Your task to perform on an android device: open app "Spotify: Music and Podcasts" (install if not already installed), go to login, and select forgot password Image 0: 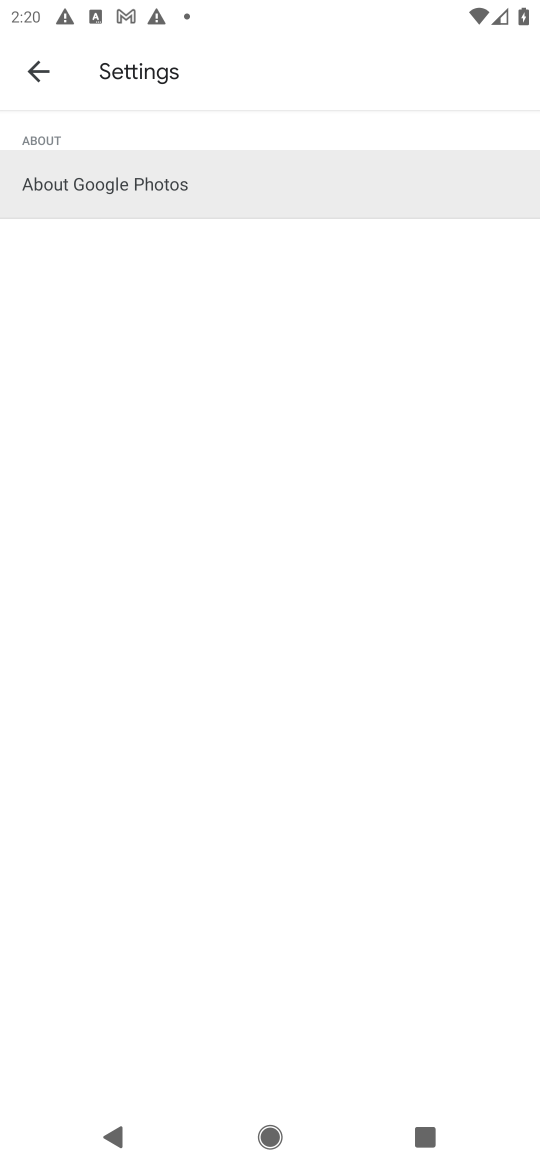
Step 0: press home button
Your task to perform on an android device: open app "Spotify: Music and Podcasts" (install if not already installed), go to login, and select forgot password Image 1: 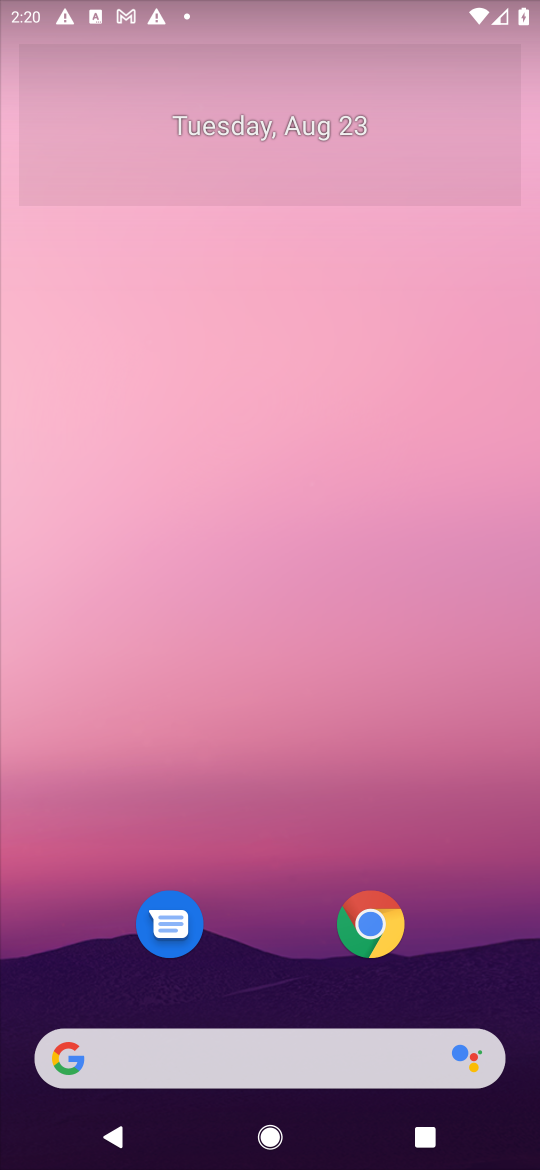
Step 1: drag from (482, 970) to (470, 156)
Your task to perform on an android device: open app "Spotify: Music and Podcasts" (install if not already installed), go to login, and select forgot password Image 2: 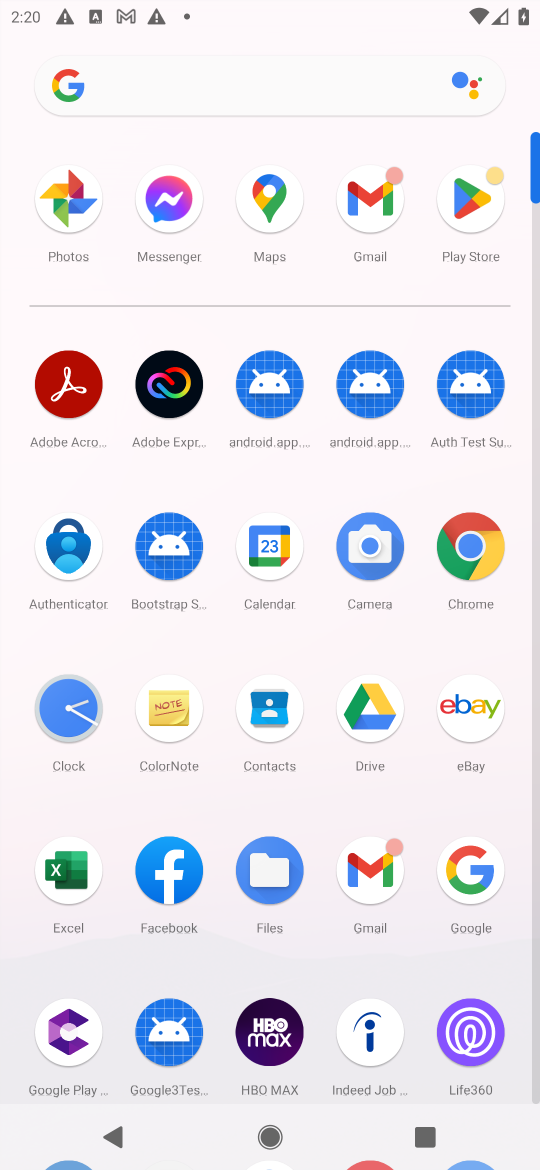
Step 2: click (467, 197)
Your task to perform on an android device: open app "Spotify: Music and Podcasts" (install if not already installed), go to login, and select forgot password Image 3: 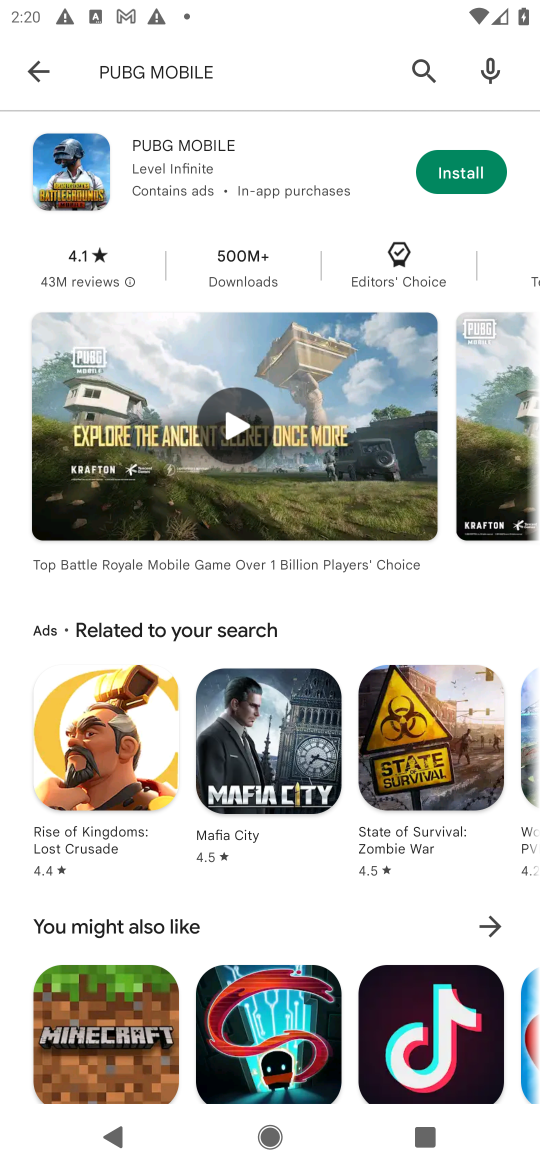
Step 3: press back button
Your task to perform on an android device: open app "Spotify: Music and Podcasts" (install if not already installed), go to login, and select forgot password Image 4: 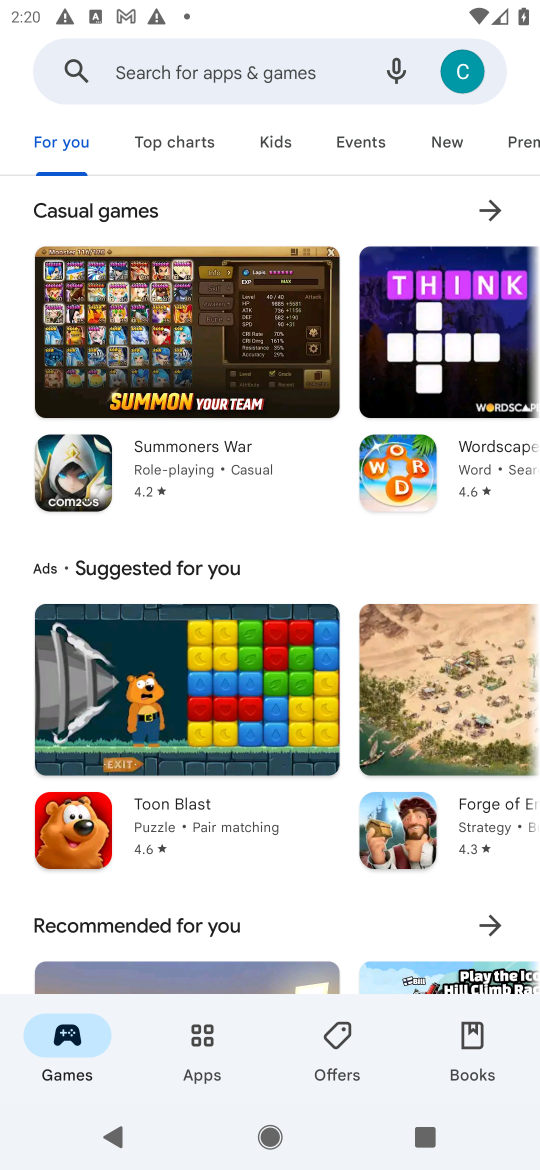
Step 4: click (229, 62)
Your task to perform on an android device: open app "Spotify: Music and Podcasts" (install if not already installed), go to login, and select forgot password Image 5: 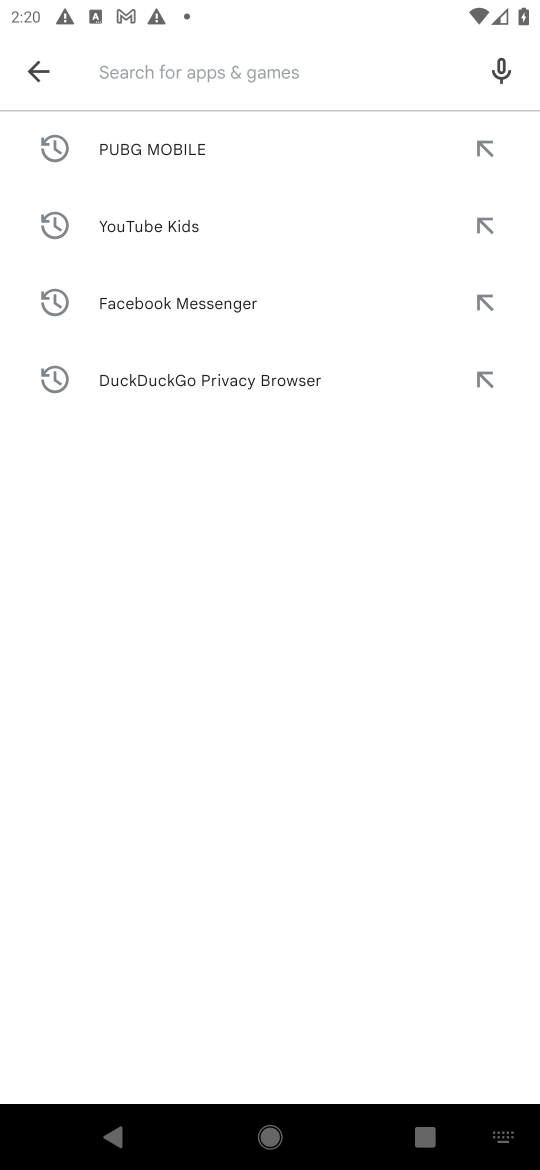
Step 5: press enter
Your task to perform on an android device: open app "Spotify: Music and Podcasts" (install if not already installed), go to login, and select forgot password Image 6: 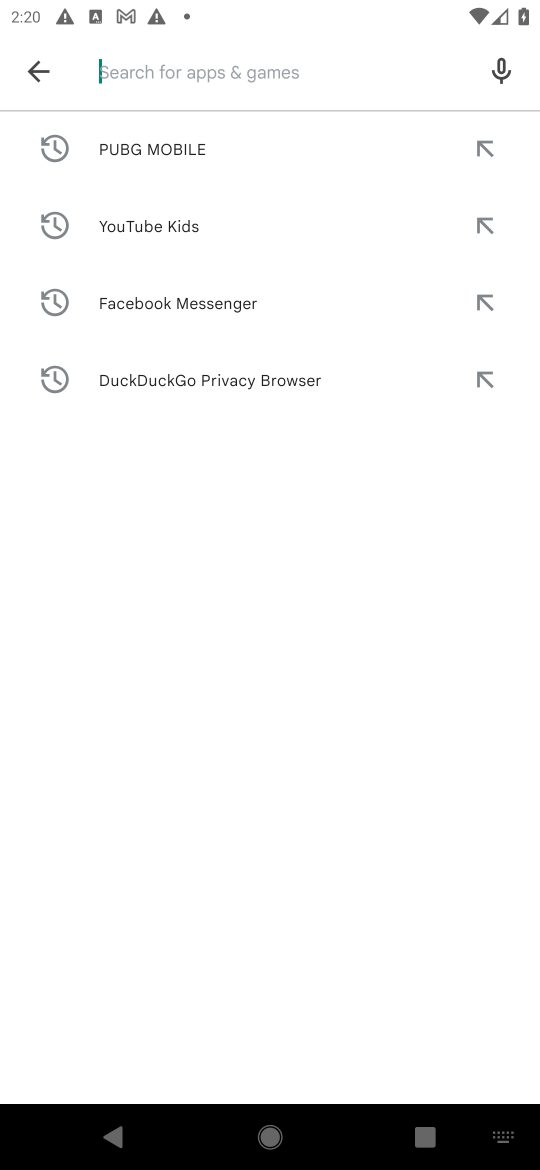
Step 6: type "Spotify: Music and Podcasts"
Your task to perform on an android device: open app "Spotify: Music and Podcasts" (install if not already installed), go to login, and select forgot password Image 7: 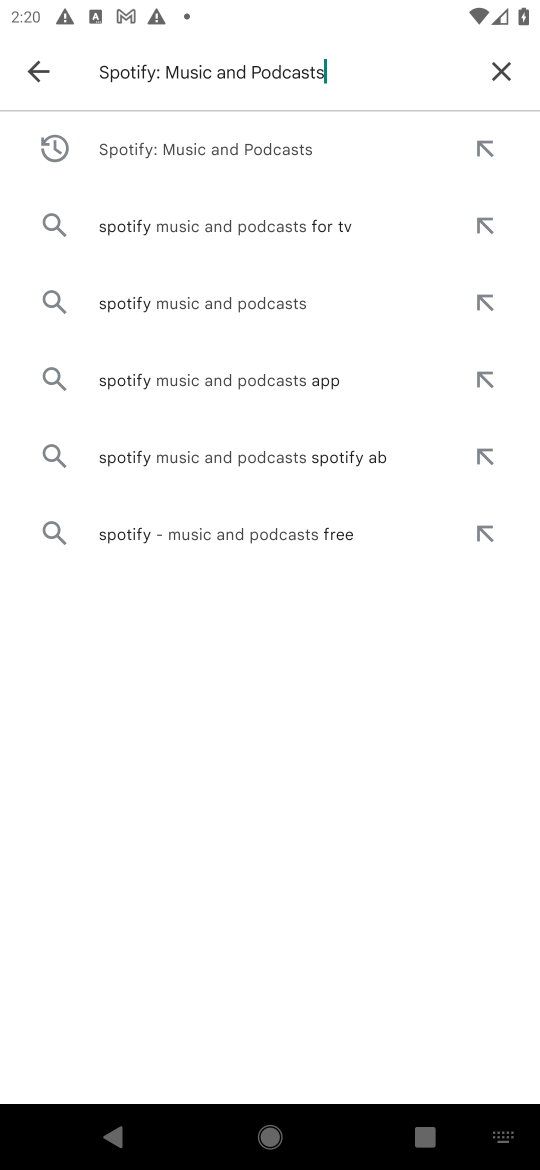
Step 7: click (245, 140)
Your task to perform on an android device: open app "Spotify: Music and Podcasts" (install if not already installed), go to login, and select forgot password Image 8: 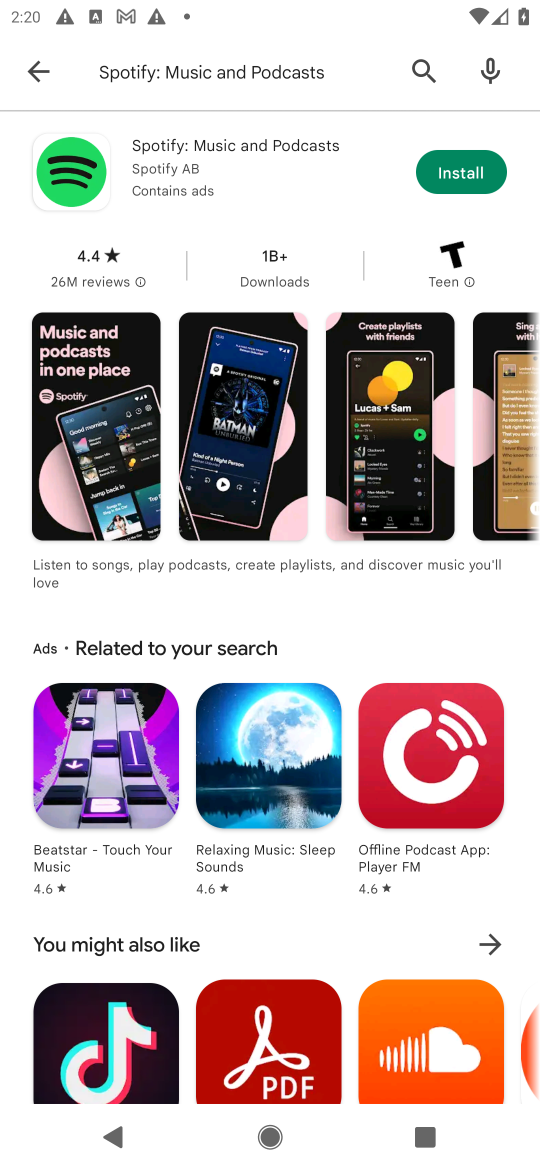
Step 8: click (433, 174)
Your task to perform on an android device: open app "Spotify: Music and Podcasts" (install if not already installed), go to login, and select forgot password Image 9: 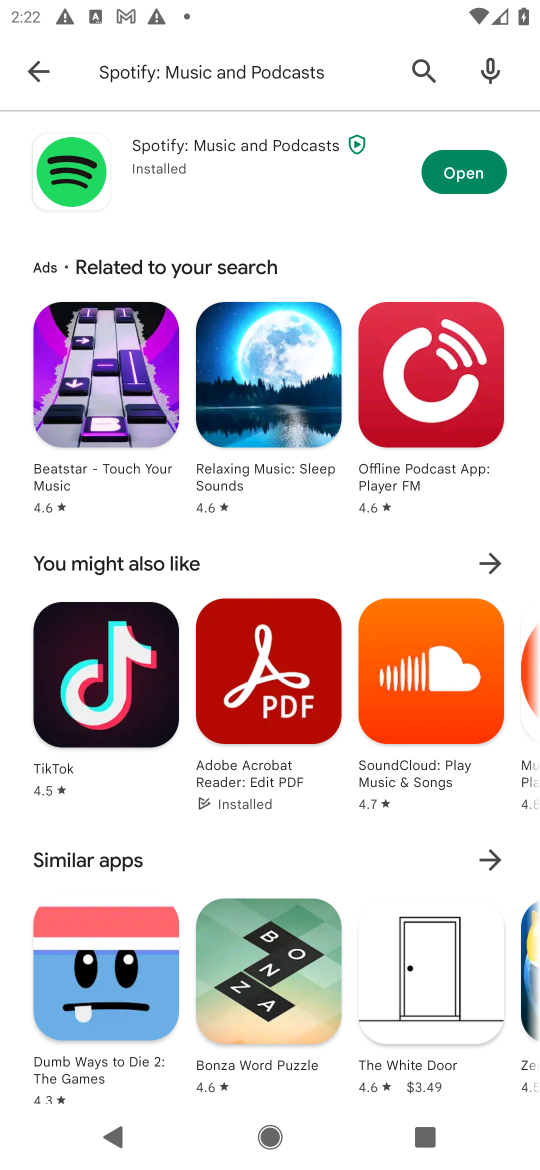
Step 9: click (464, 174)
Your task to perform on an android device: open app "Spotify: Music and Podcasts" (install if not already installed), go to login, and select forgot password Image 10: 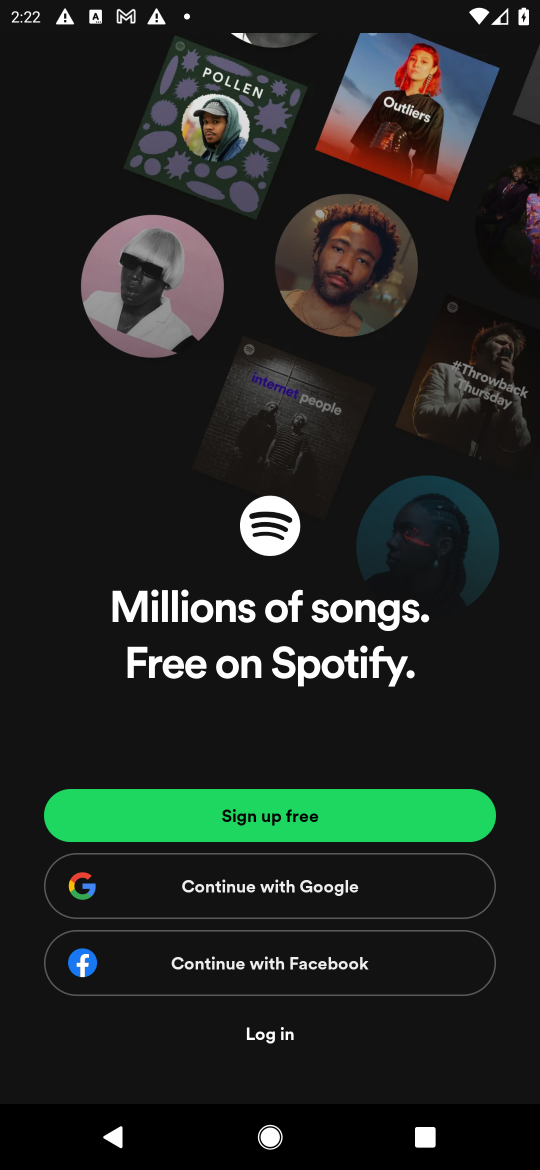
Step 10: click (278, 1037)
Your task to perform on an android device: open app "Spotify: Music and Podcasts" (install if not already installed), go to login, and select forgot password Image 11: 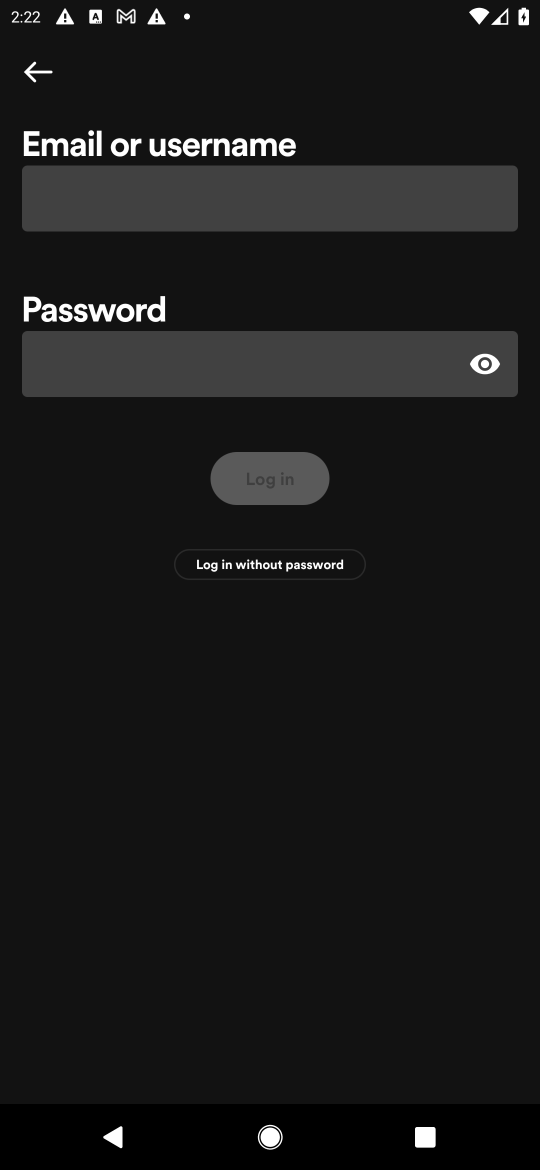
Step 11: task complete